Your task to perform on an android device: turn off notifications in google photos Image 0: 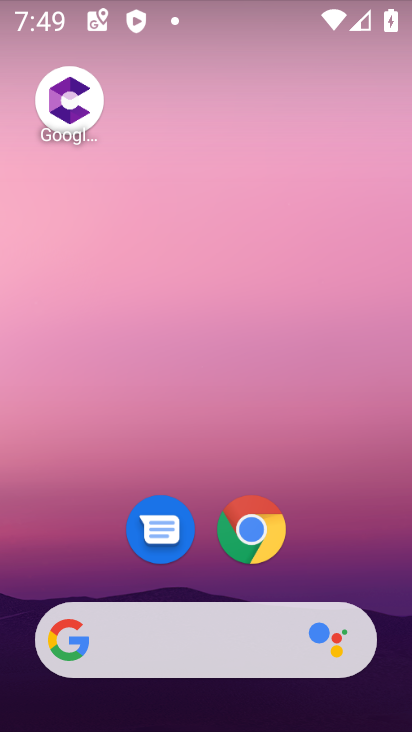
Step 0: drag from (218, 723) to (218, 114)
Your task to perform on an android device: turn off notifications in google photos Image 1: 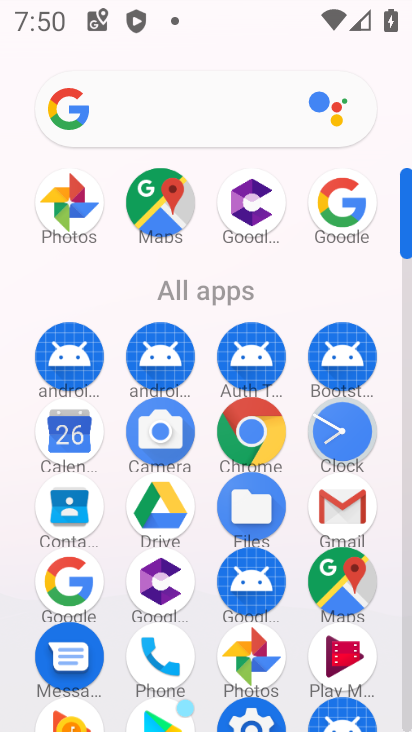
Step 1: click (255, 649)
Your task to perform on an android device: turn off notifications in google photos Image 2: 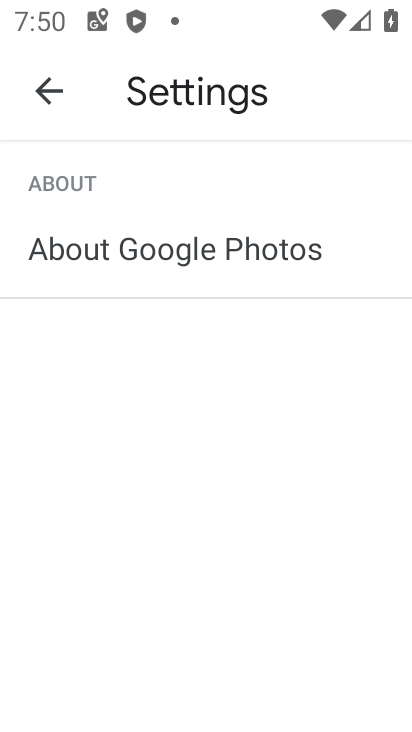
Step 2: click (46, 88)
Your task to perform on an android device: turn off notifications in google photos Image 3: 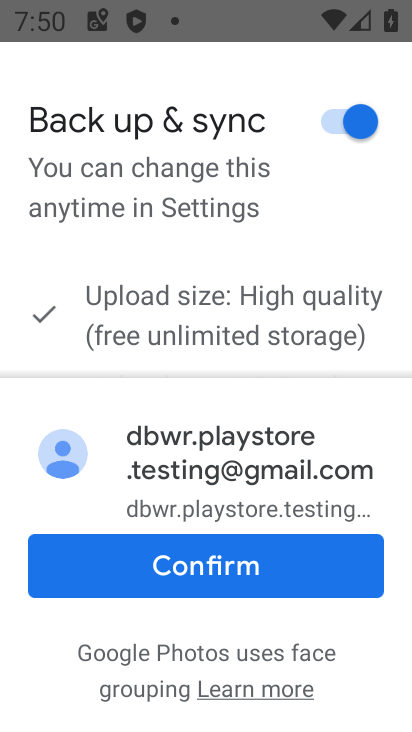
Step 3: click (211, 575)
Your task to perform on an android device: turn off notifications in google photos Image 4: 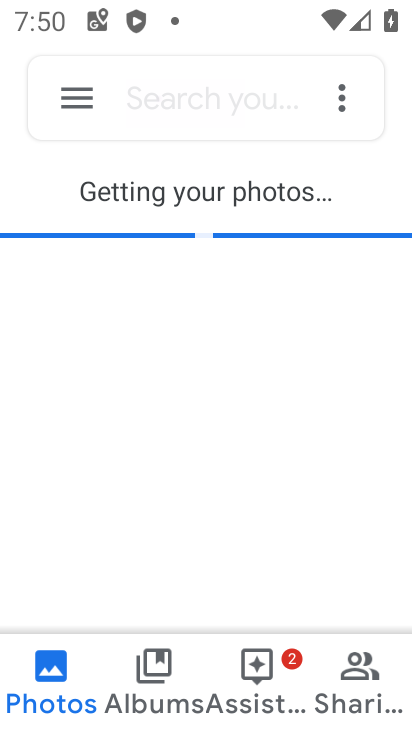
Step 4: click (69, 94)
Your task to perform on an android device: turn off notifications in google photos Image 5: 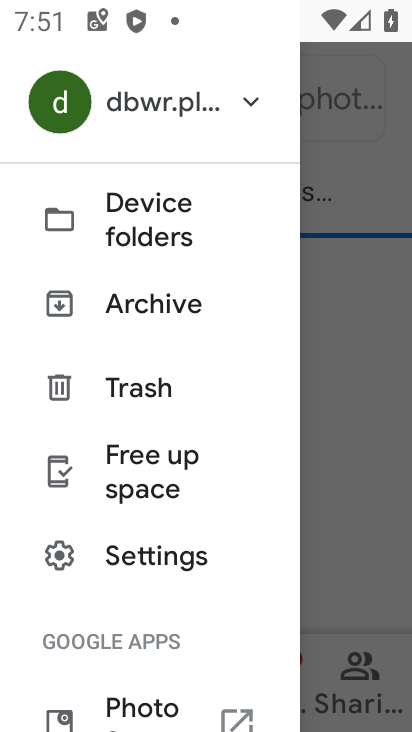
Step 5: drag from (146, 595) to (149, 297)
Your task to perform on an android device: turn off notifications in google photos Image 6: 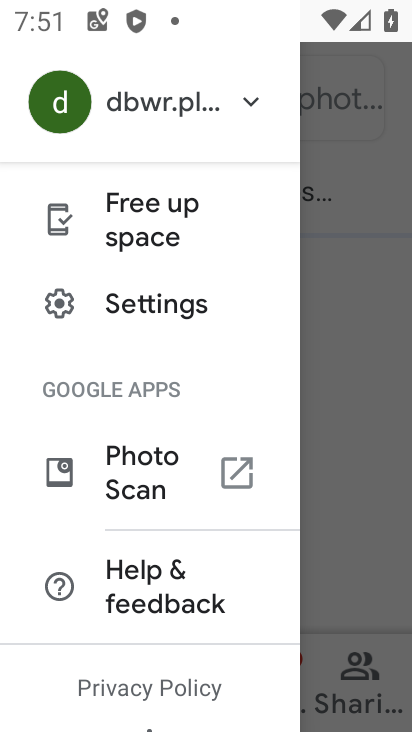
Step 6: drag from (195, 430) to (195, 595)
Your task to perform on an android device: turn off notifications in google photos Image 7: 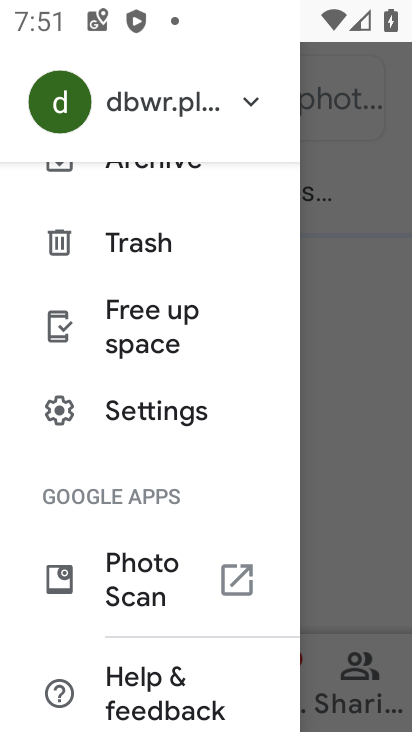
Step 7: drag from (165, 226) to (140, 541)
Your task to perform on an android device: turn off notifications in google photos Image 8: 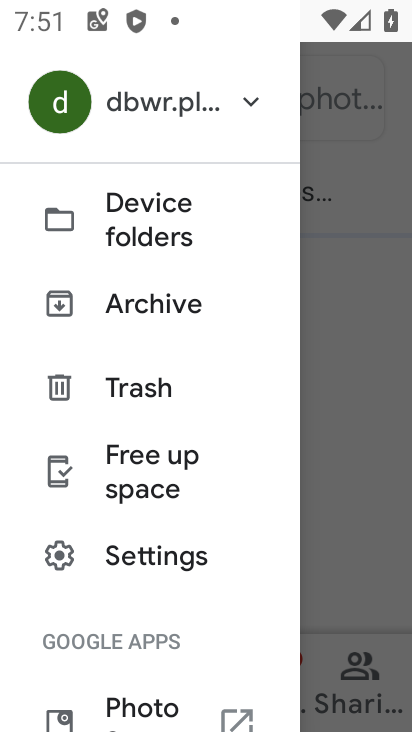
Step 8: click (160, 550)
Your task to perform on an android device: turn off notifications in google photos Image 9: 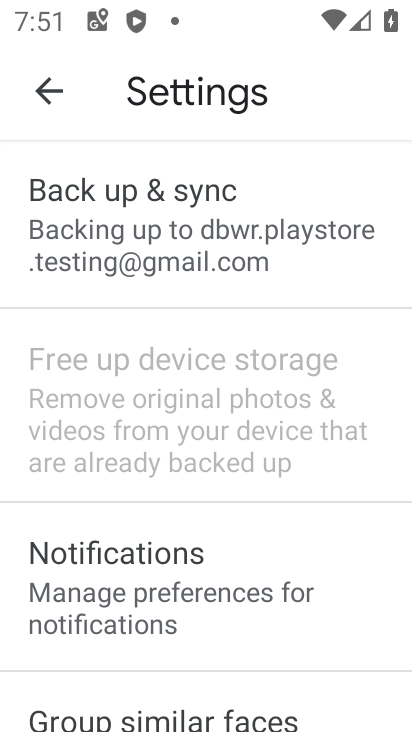
Step 9: click (148, 584)
Your task to perform on an android device: turn off notifications in google photos Image 10: 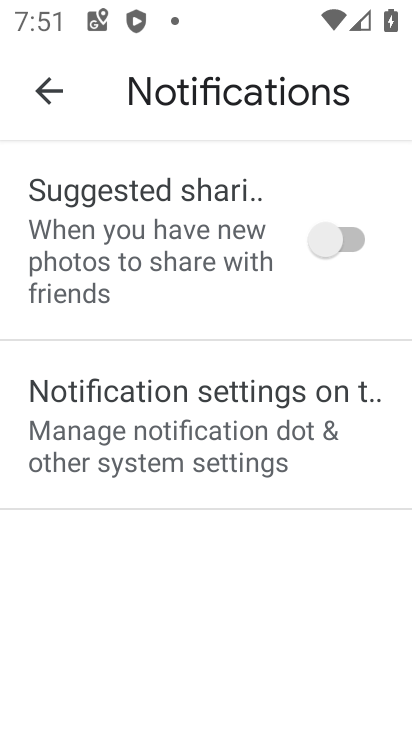
Step 10: click (295, 414)
Your task to perform on an android device: turn off notifications in google photos Image 11: 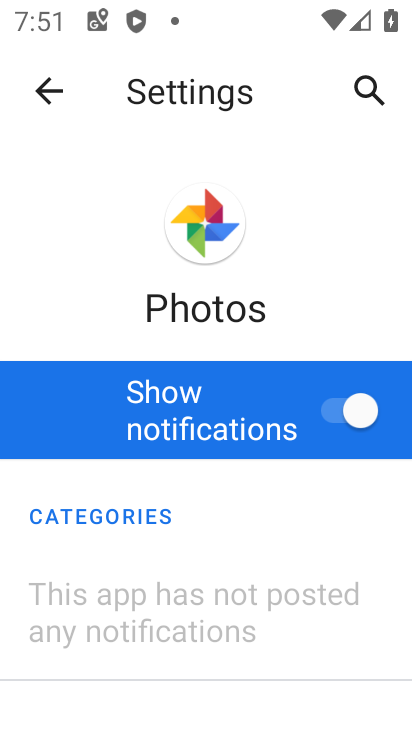
Step 11: click (339, 406)
Your task to perform on an android device: turn off notifications in google photos Image 12: 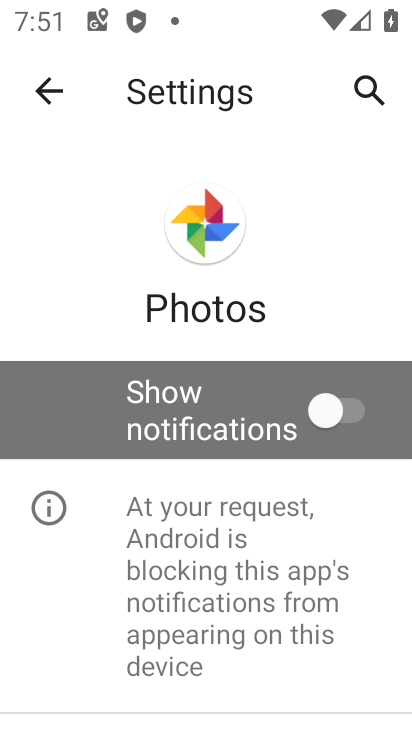
Step 12: task complete